Your task to perform on an android device: turn smart compose on in the gmail app Image 0: 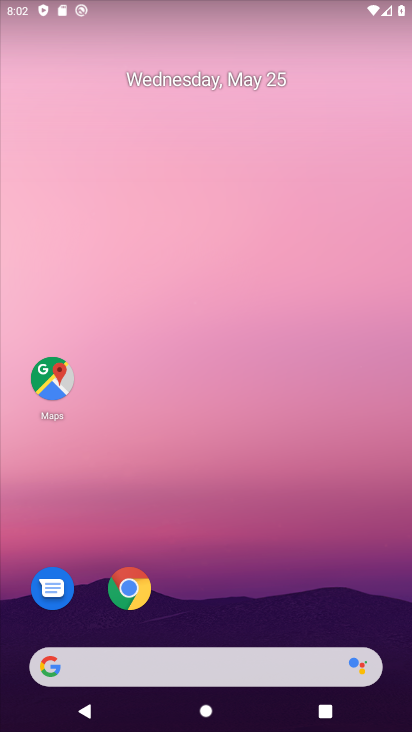
Step 0: press back button
Your task to perform on an android device: turn smart compose on in the gmail app Image 1: 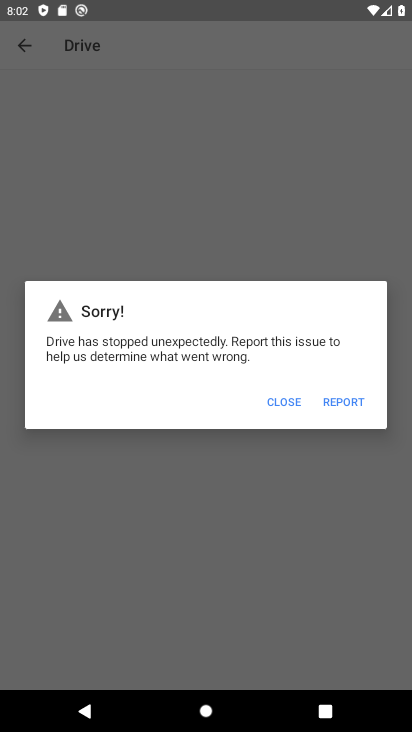
Step 1: press home button
Your task to perform on an android device: turn smart compose on in the gmail app Image 2: 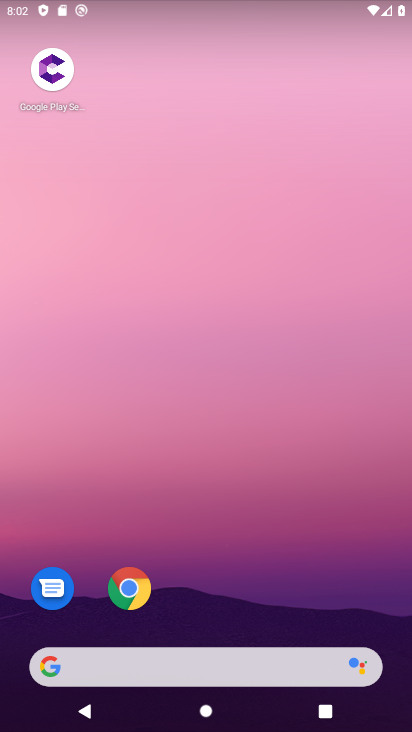
Step 2: drag from (24, 533) to (251, 97)
Your task to perform on an android device: turn smart compose on in the gmail app Image 3: 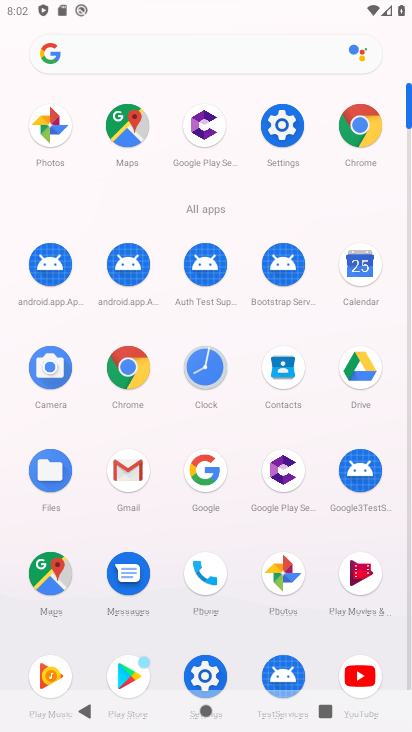
Step 3: click (132, 475)
Your task to perform on an android device: turn smart compose on in the gmail app Image 4: 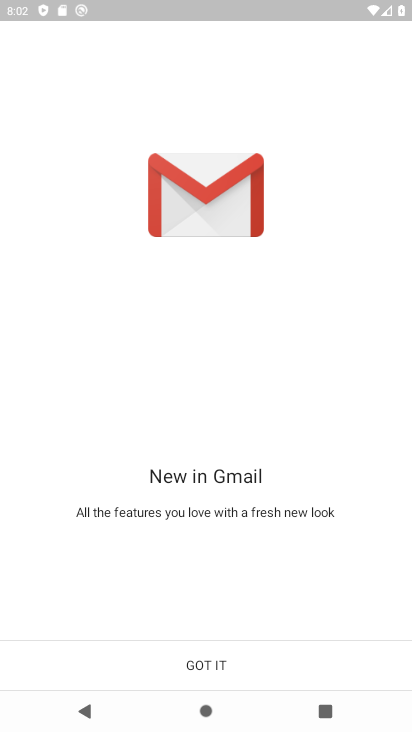
Step 4: click (132, 661)
Your task to perform on an android device: turn smart compose on in the gmail app Image 5: 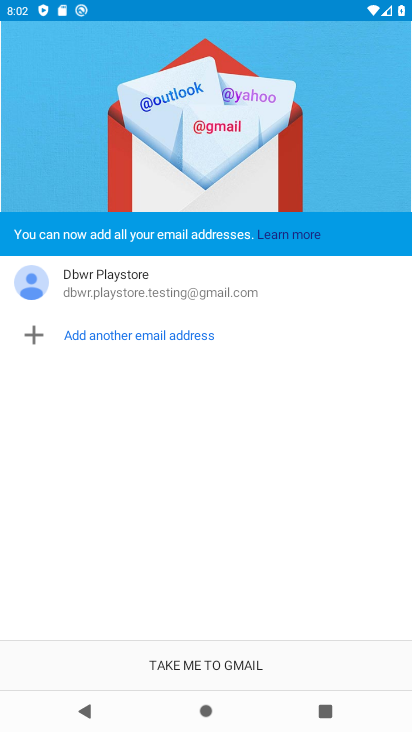
Step 5: click (209, 657)
Your task to perform on an android device: turn smart compose on in the gmail app Image 6: 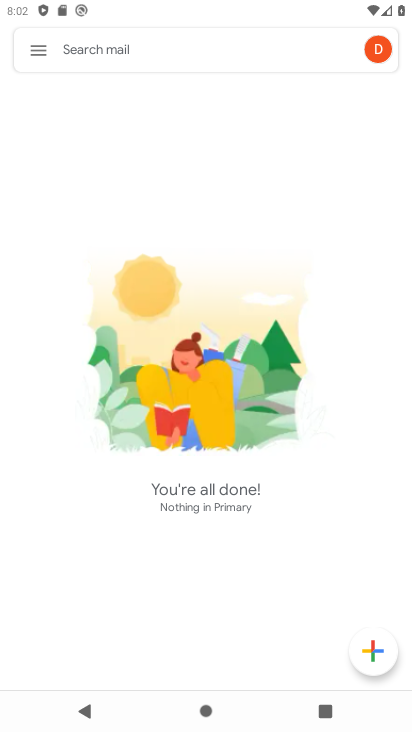
Step 6: click (35, 51)
Your task to perform on an android device: turn smart compose on in the gmail app Image 7: 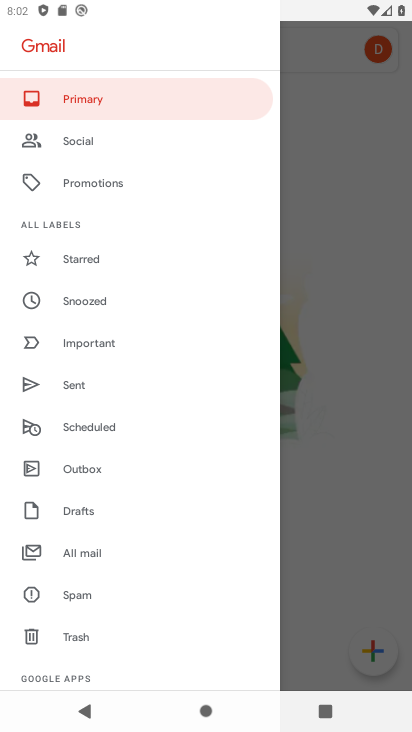
Step 7: drag from (10, 582) to (180, 177)
Your task to perform on an android device: turn smart compose on in the gmail app Image 8: 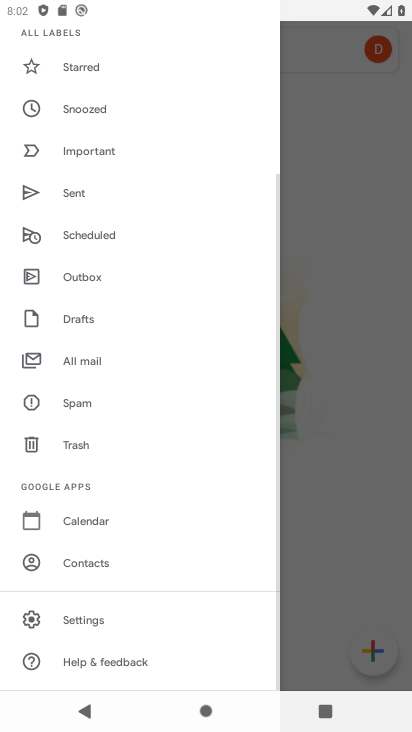
Step 8: click (123, 618)
Your task to perform on an android device: turn smart compose on in the gmail app Image 9: 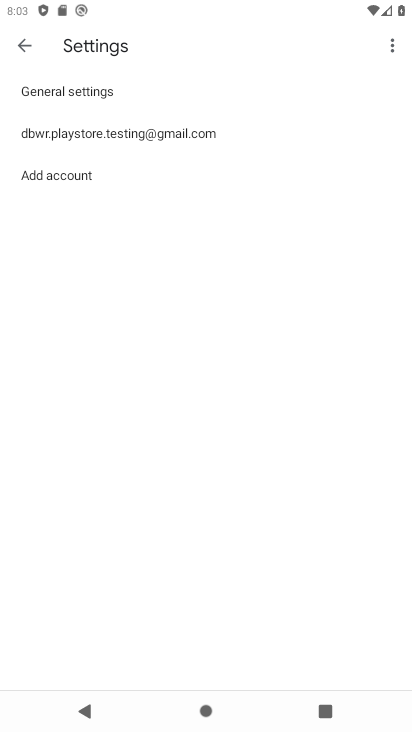
Step 9: click (159, 127)
Your task to perform on an android device: turn smart compose on in the gmail app Image 10: 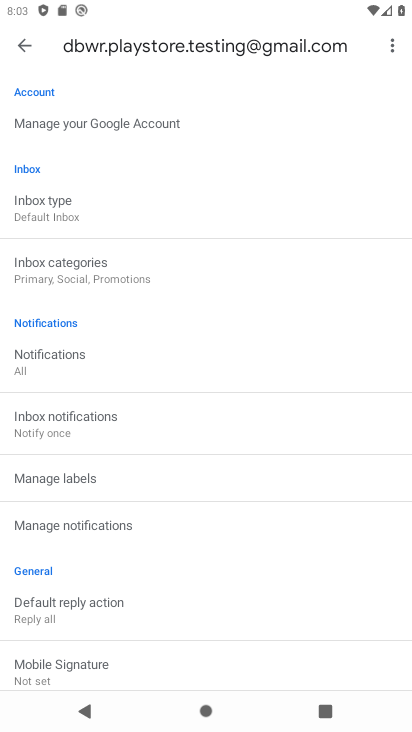
Step 10: task complete